Your task to perform on an android device: Clear the shopping cart on bestbuy.com. Search for "asus zenbook" on bestbuy.com, select the first entry, and add it to the cart. Image 0: 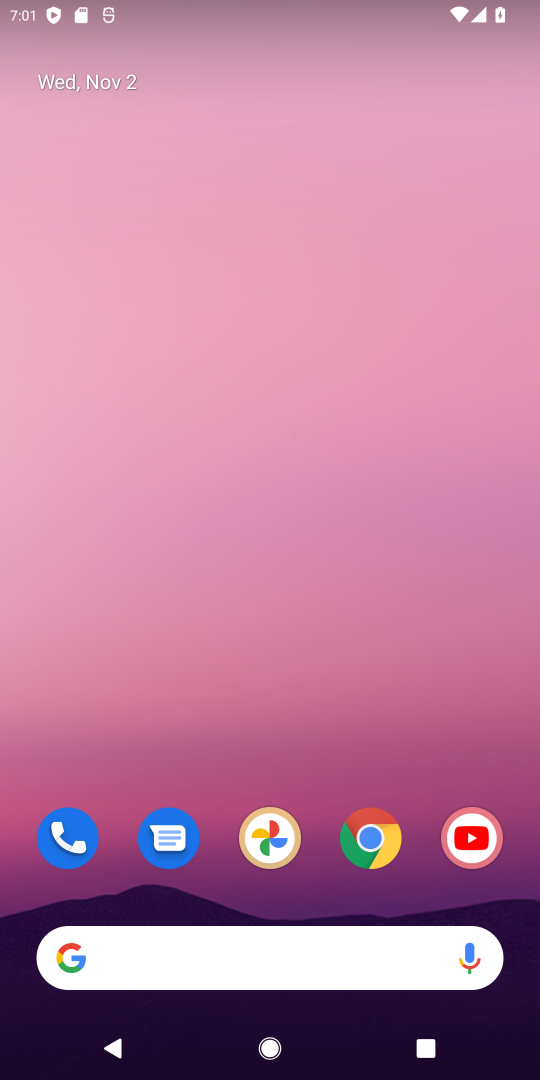
Step 0: click (375, 829)
Your task to perform on an android device: Clear the shopping cart on bestbuy.com. Search for "asus zenbook" on bestbuy.com, select the first entry, and add it to the cart. Image 1: 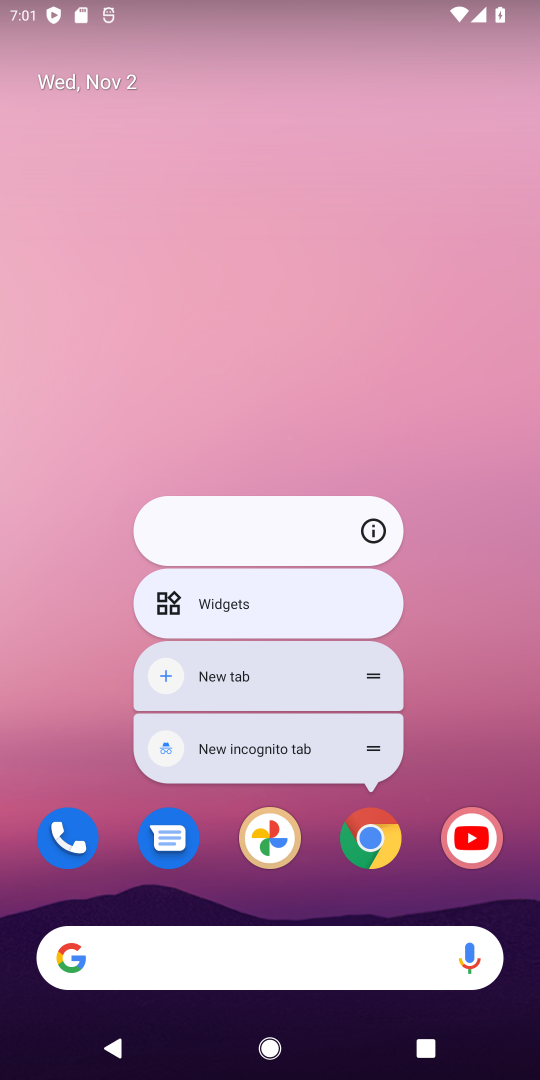
Step 1: click (378, 844)
Your task to perform on an android device: Clear the shopping cart on bestbuy.com. Search for "asus zenbook" on bestbuy.com, select the first entry, and add it to the cart. Image 2: 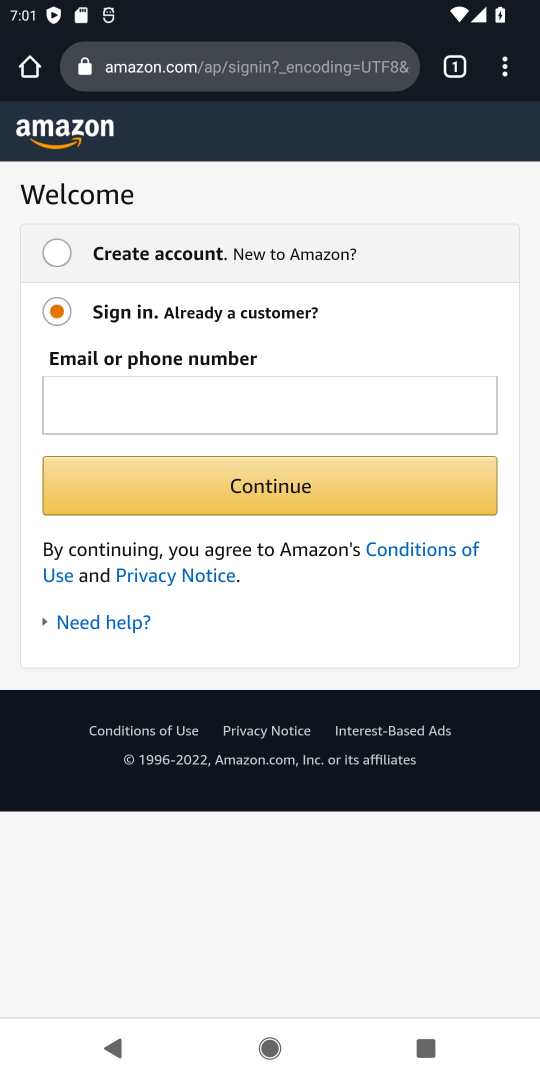
Step 2: click (278, 75)
Your task to perform on an android device: Clear the shopping cart on bestbuy.com. Search for "asus zenbook" on bestbuy.com, select the first entry, and add it to the cart. Image 3: 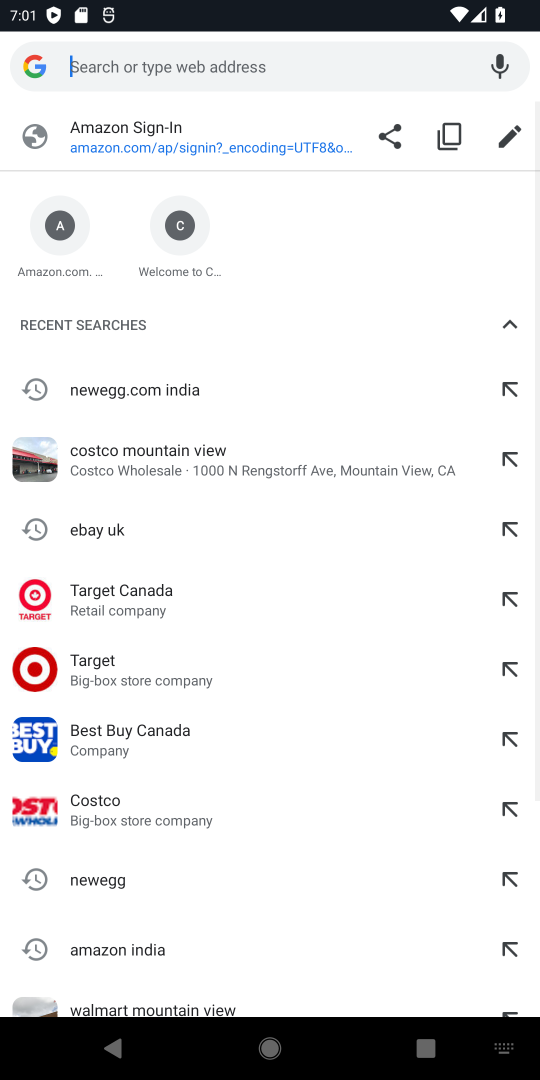
Step 3: type "bestbuy.com"
Your task to perform on an android device: Clear the shopping cart on bestbuy.com. Search for "asus zenbook" on bestbuy.com, select the first entry, and add it to the cart. Image 4: 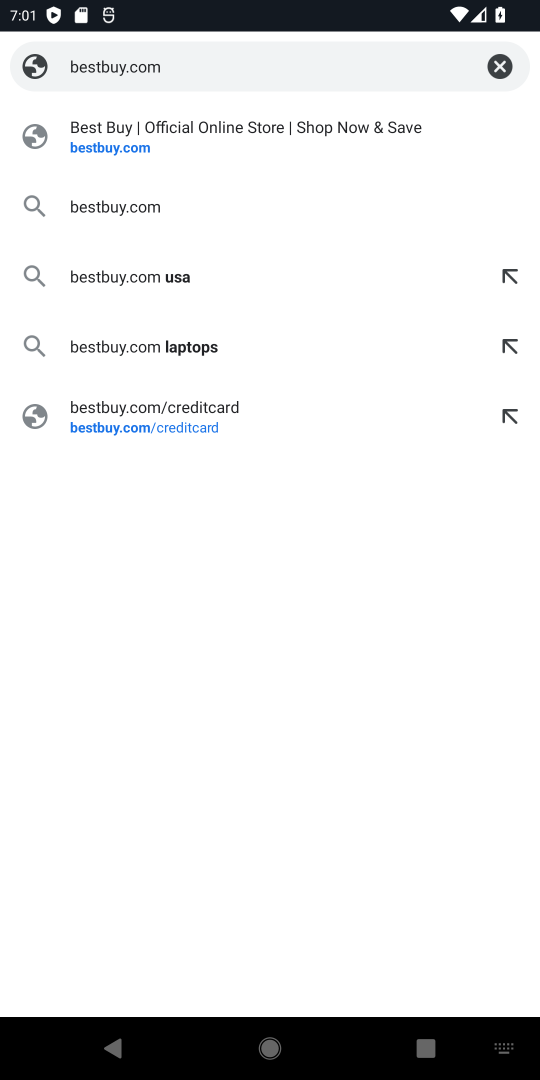
Step 4: press enter
Your task to perform on an android device: Clear the shopping cart on bestbuy.com. Search for "asus zenbook" on bestbuy.com, select the first entry, and add it to the cart. Image 5: 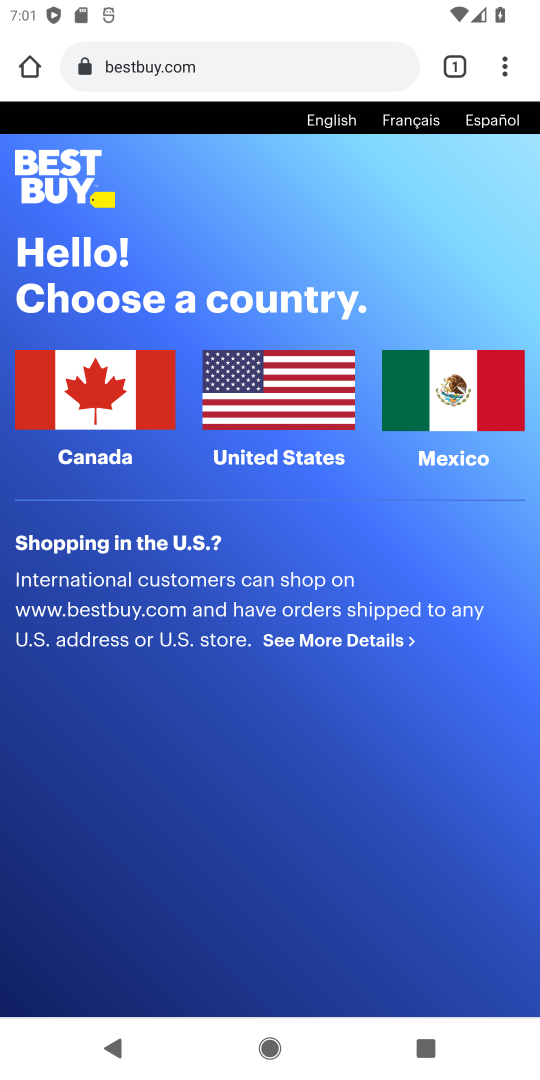
Step 5: click (220, 437)
Your task to perform on an android device: Clear the shopping cart on bestbuy.com. Search for "asus zenbook" on bestbuy.com, select the first entry, and add it to the cart. Image 6: 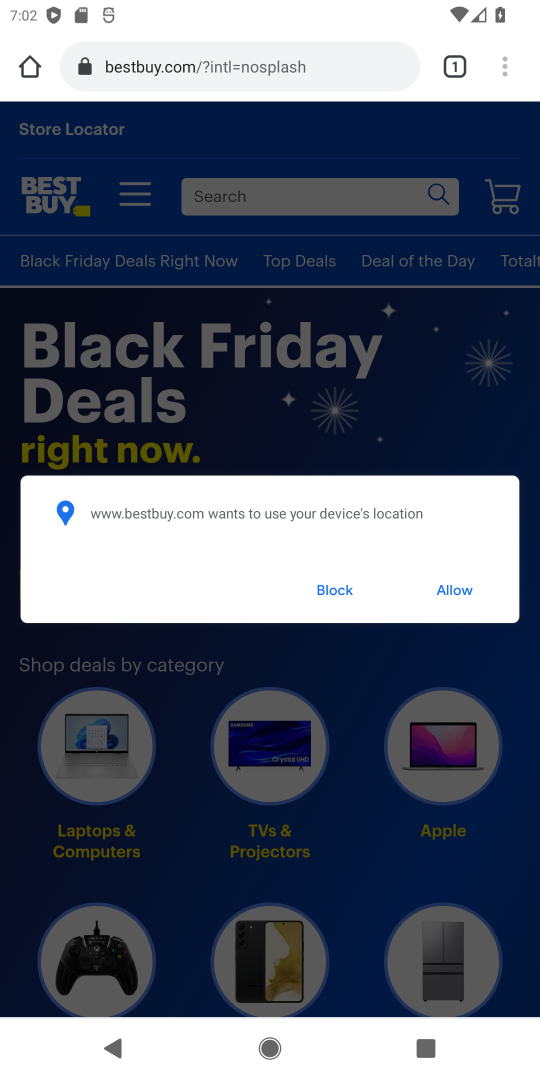
Step 6: click (446, 588)
Your task to perform on an android device: Clear the shopping cart on bestbuy.com. Search for "asus zenbook" on bestbuy.com, select the first entry, and add it to the cart. Image 7: 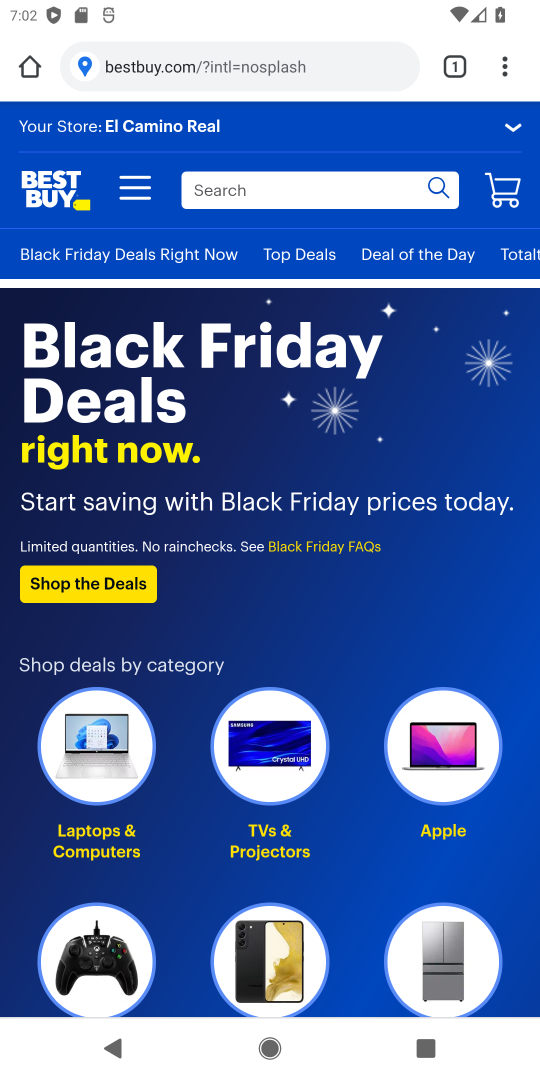
Step 7: click (306, 175)
Your task to perform on an android device: Clear the shopping cart on bestbuy.com. Search for "asus zenbook" on bestbuy.com, select the first entry, and add it to the cart. Image 8: 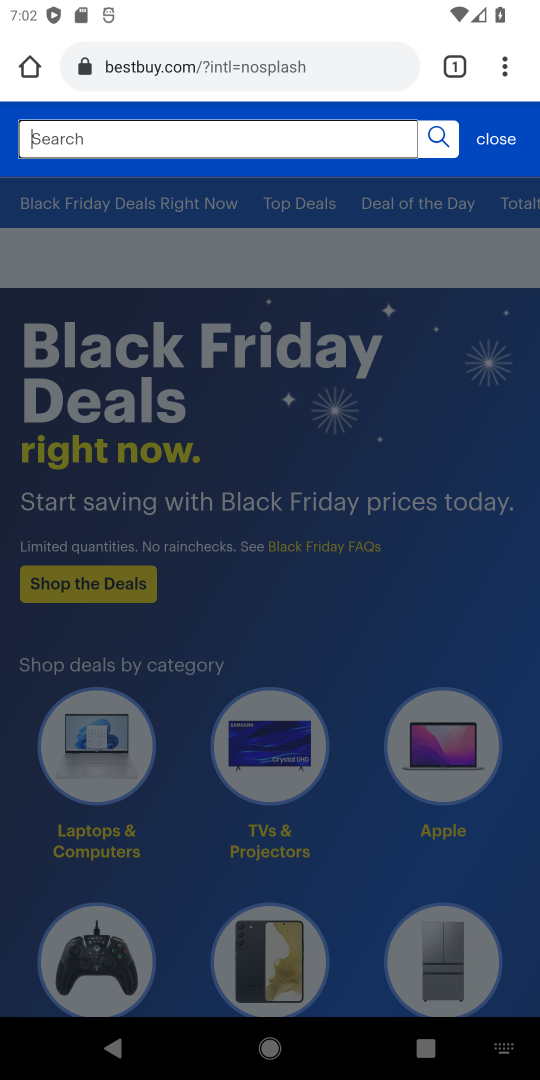
Step 8: type "asus zenbook"
Your task to perform on an android device: Clear the shopping cart on bestbuy.com. Search for "asus zenbook" on bestbuy.com, select the first entry, and add it to the cart. Image 9: 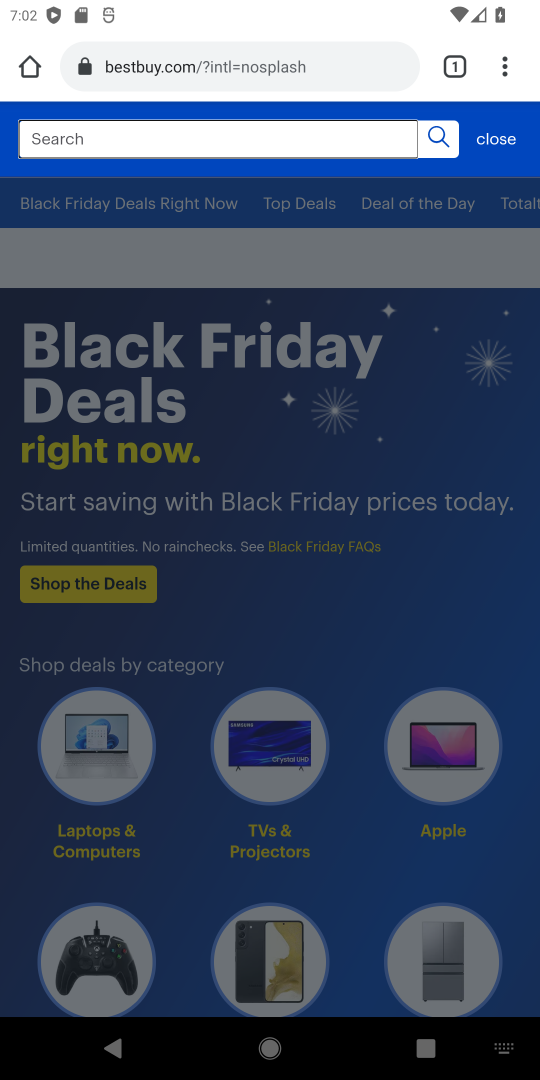
Step 9: type ""
Your task to perform on an android device: Clear the shopping cart on bestbuy.com. Search for "asus zenbook" on bestbuy.com, select the first entry, and add it to the cart. Image 10: 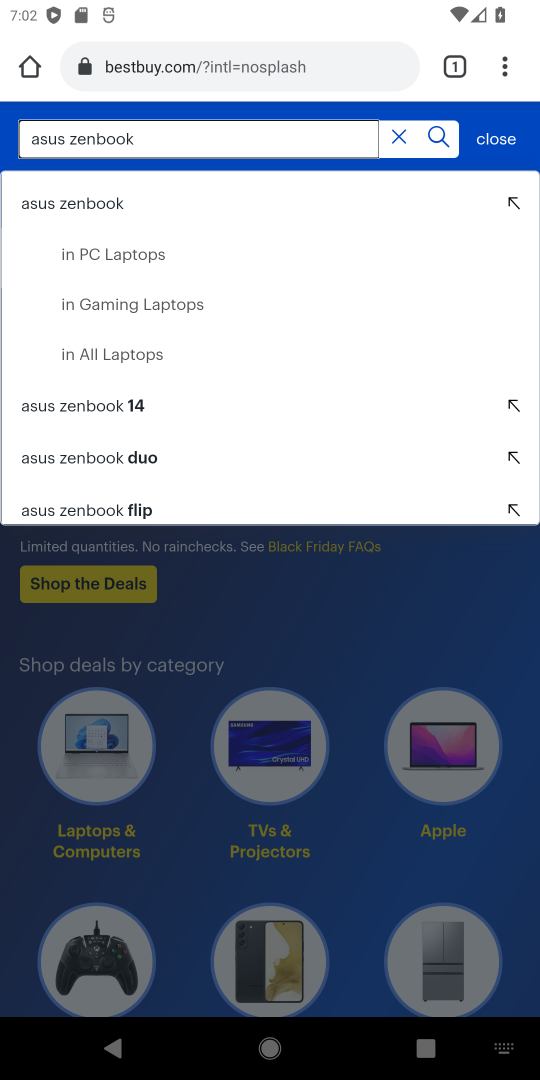
Step 10: press enter
Your task to perform on an android device: Clear the shopping cart on bestbuy.com. Search for "asus zenbook" on bestbuy.com, select the first entry, and add it to the cart. Image 11: 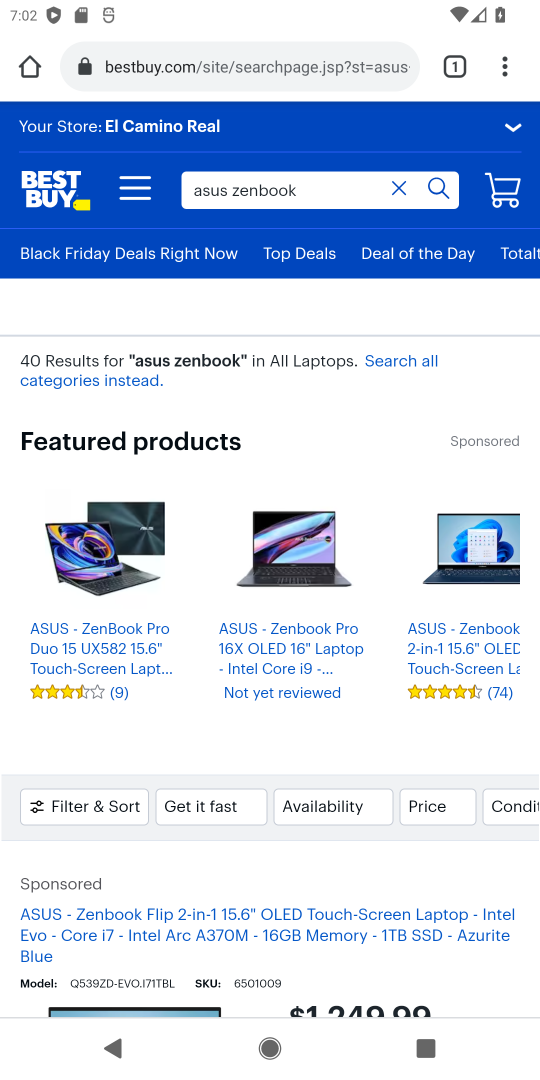
Step 11: click (122, 643)
Your task to perform on an android device: Clear the shopping cart on bestbuy.com. Search for "asus zenbook" on bestbuy.com, select the first entry, and add it to the cart. Image 12: 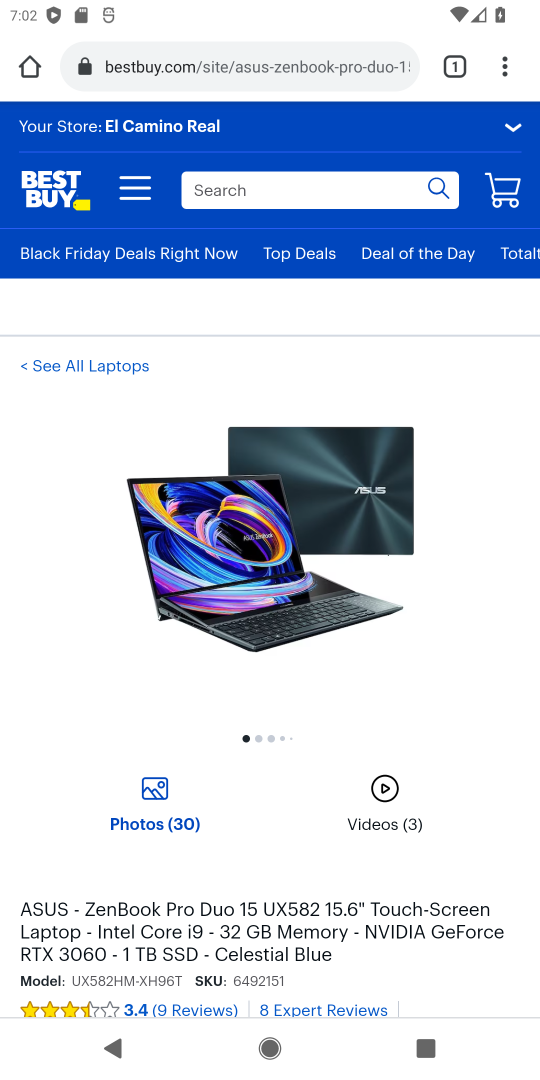
Step 12: drag from (354, 935) to (357, 529)
Your task to perform on an android device: Clear the shopping cart on bestbuy.com. Search for "asus zenbook" on bestbuy.com, select the first entry, and add it to the cart. Image 13: 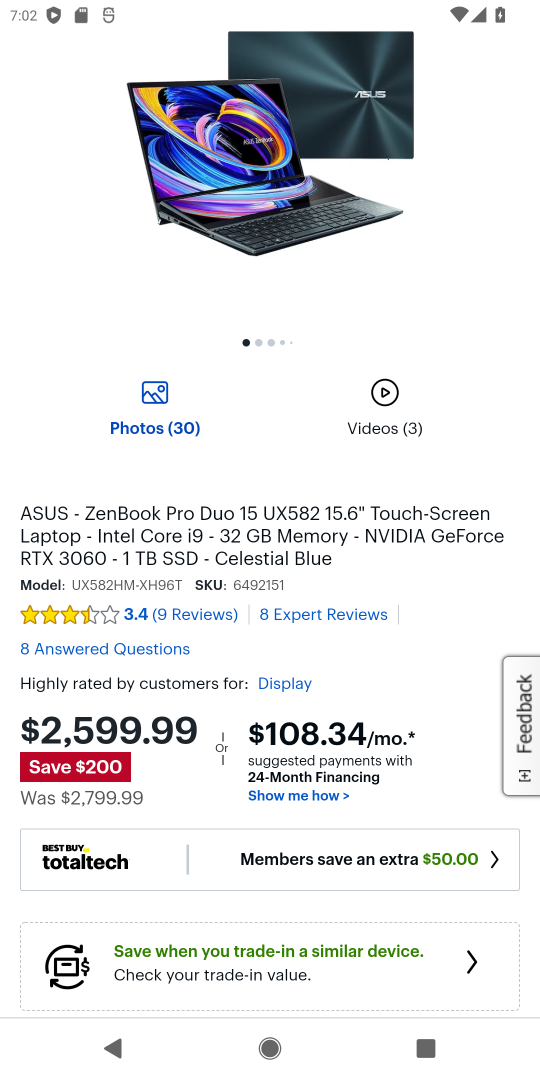
Step 13: drag from (309, 795) to (301, 163)
Your task to perform on an android device: Clear the shopping cart on bestbuy.com. Search for "asus zenbook" on bestbuy.com, select the first entry, and add it to the cart. Image 14: 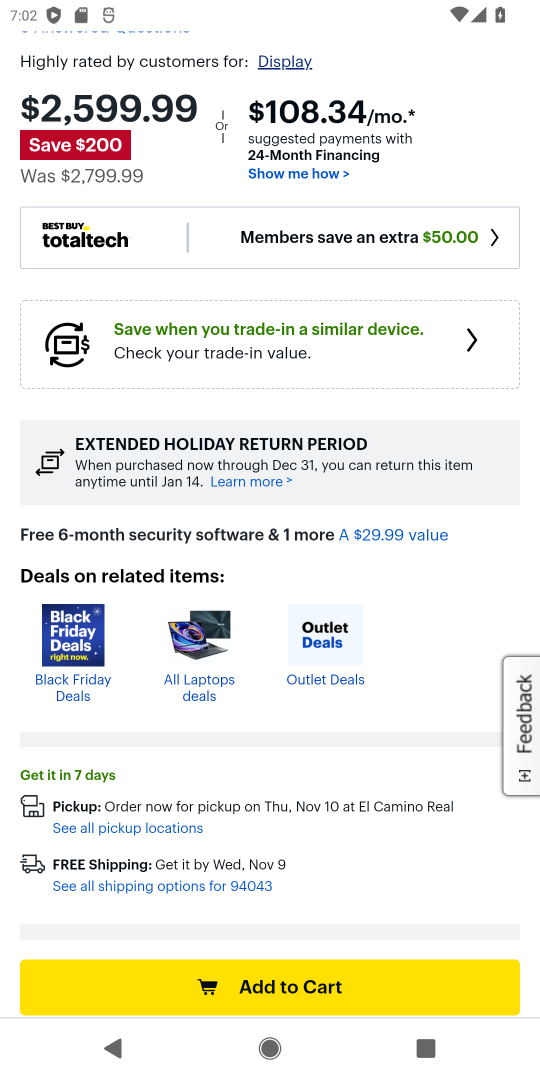
Step 14: click (291, 990)
Your task to perform on an android device: Clear the shopping cart on bestbuy.com. Search for "asus zenbook" on bestbuy.com, select the first entry, and add it to the cart. Image 15: 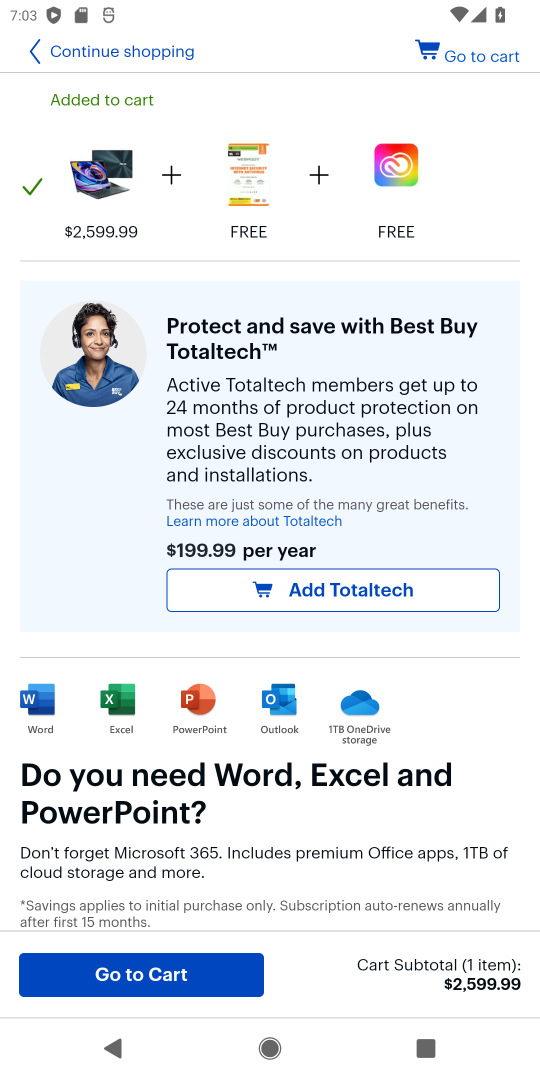
Step 15: task complete